Your task to perform on an android device: open sync settings in chrome Image 0: 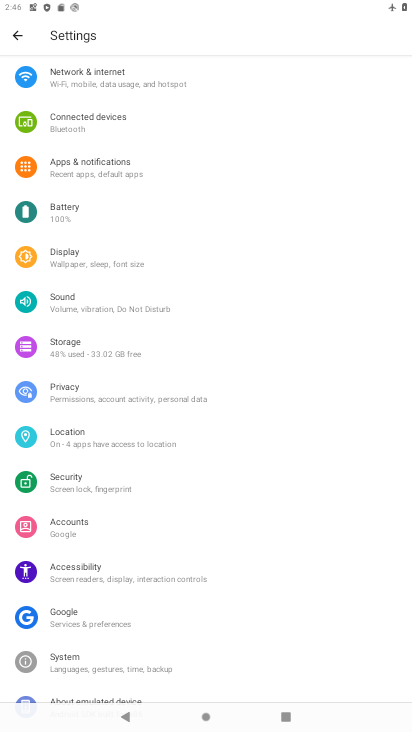
Step 0: press home button
Your task to perform on an android device: open sync settings in chrome Image 1: 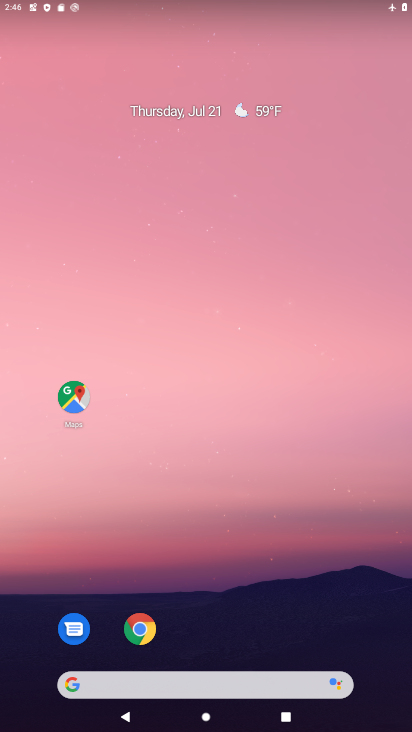
Step 1: drag from (238, 725) to (196, 192)
Your task to perform on an android device: open sync settings in chrome Image 2: 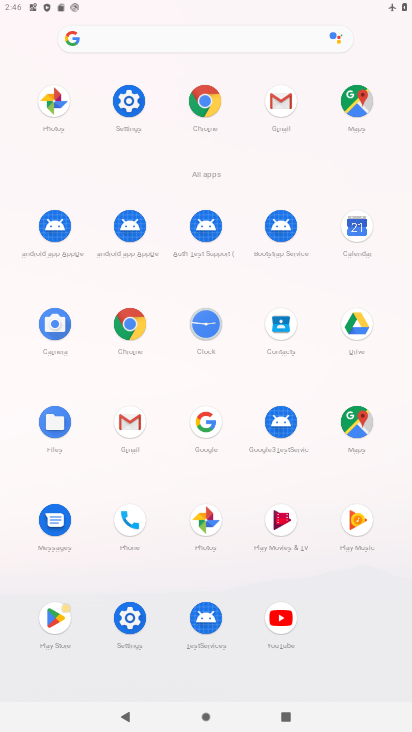
Step 2: click (127, 320)
Your task to perform on an android device: open sync settings in chrome Image 3: 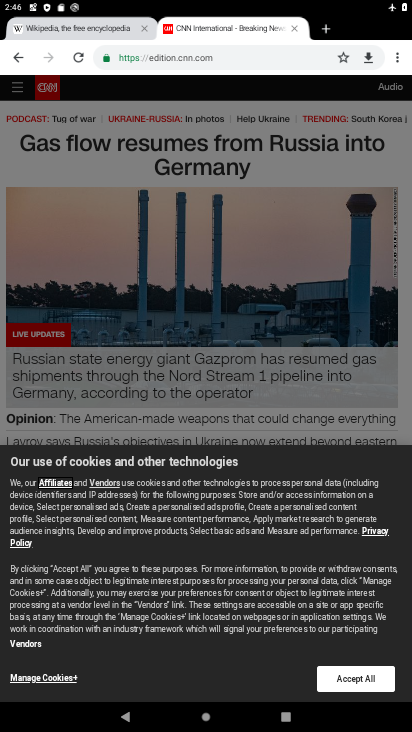
Step 3: click (396, 61)
Your task to perform on an android device: open sync settings in chrome Image 4: 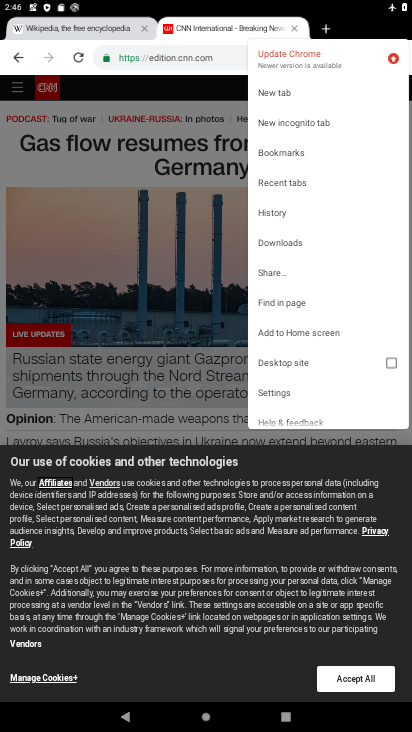
Step 4: click (280, 388)
Your task to perform on an android device: open sync settings in chrome Image 5: 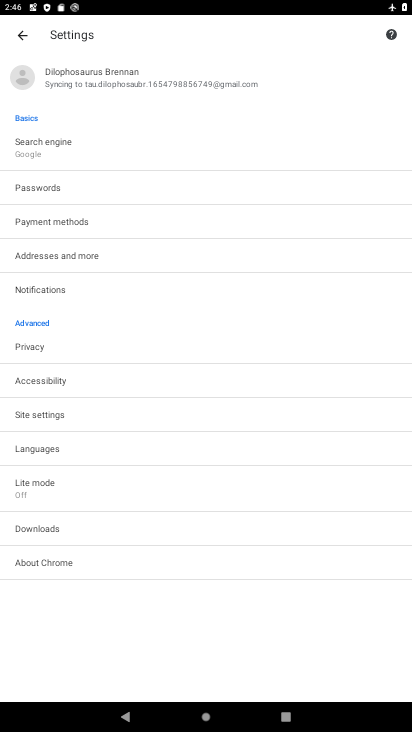
Step 5: click (48, 413)
Your task to perform on an android device: open sync settings in chrome Image 6: 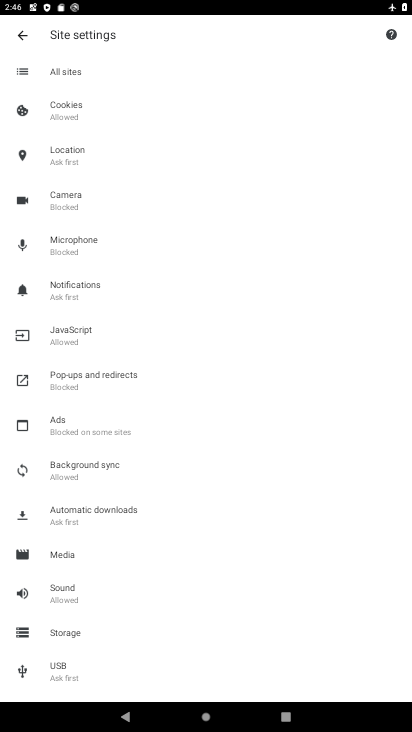
Step 6: click (66, 468)
Your task to perform on an android device: open sync settings in chrome Image 7: 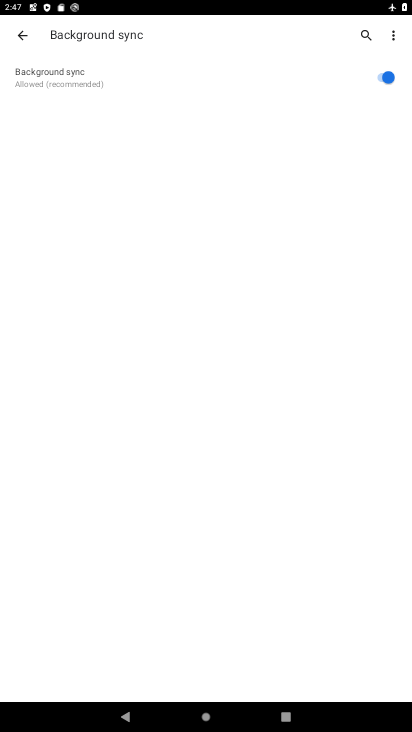
Step 7: click (384, 78)
Your task to perform on an android device: open sync settings in chrome Image 8: 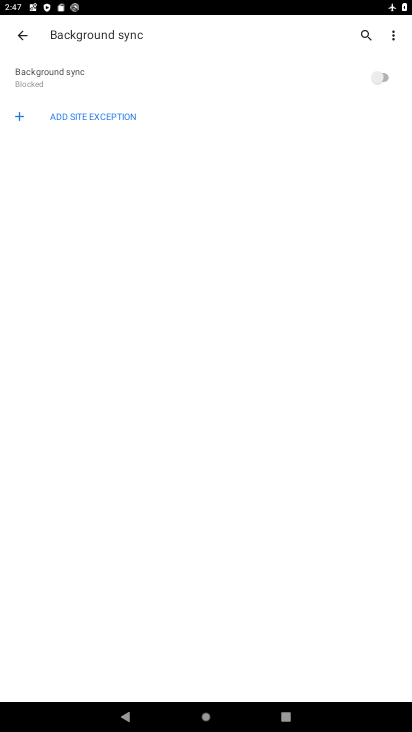
Step 8: task complete